Your task to perform on an android device: Open the calendar and show me this week's events Image 0: 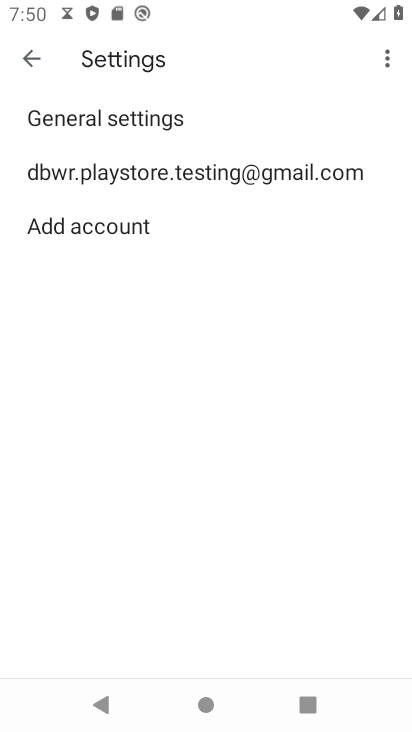
Step 0: press home button
Your task to perform on an android device: Open the calendar and show me this week's events Image 1: 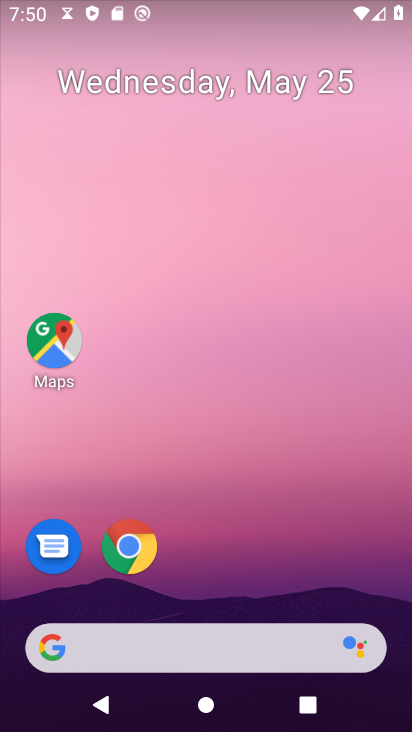
Step 1: drag from (226, 542) to (196, 12)
Your task to perform on an android device: Open the calendar and show me this week's events Image 2: 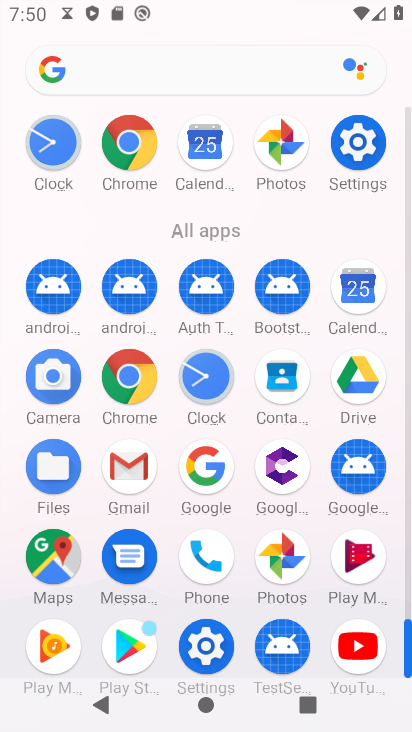
Step 2: click (344, 362)
Your task to perform on an android device: Open the calendar and show me this week's events Image 3: 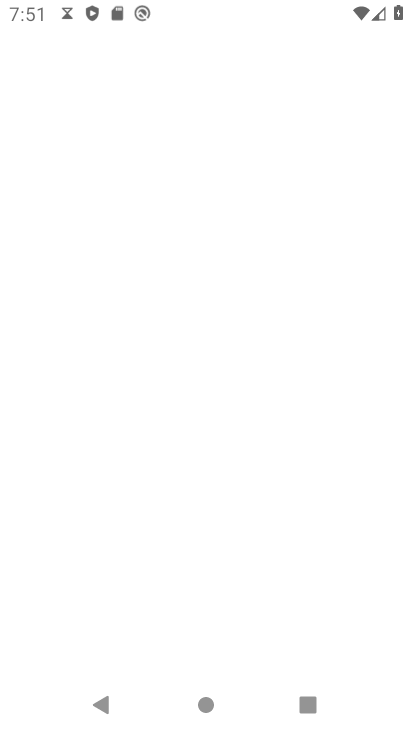
Step 3: press back button
Your task to perform on an android device: Open the calendar and show me this week's events Image 4: 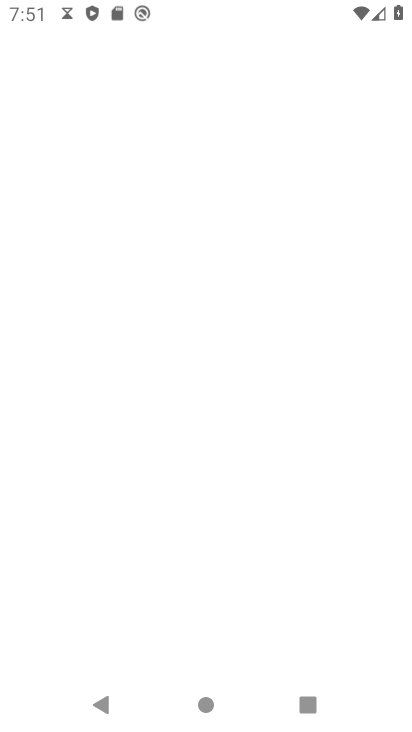
Step 4: press back button
Your task to perform on an android device: Open the calendar and show me this week's events Image 5: 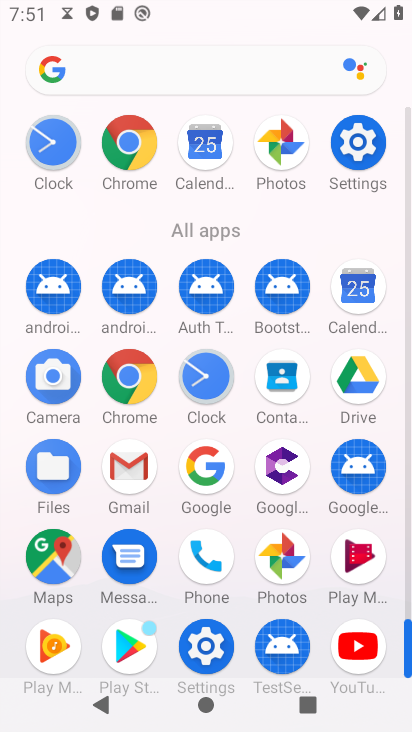
Step 5: click (363, 294)
Your task to perform on an android device: Open the calendar and show me this week's events Image 6: 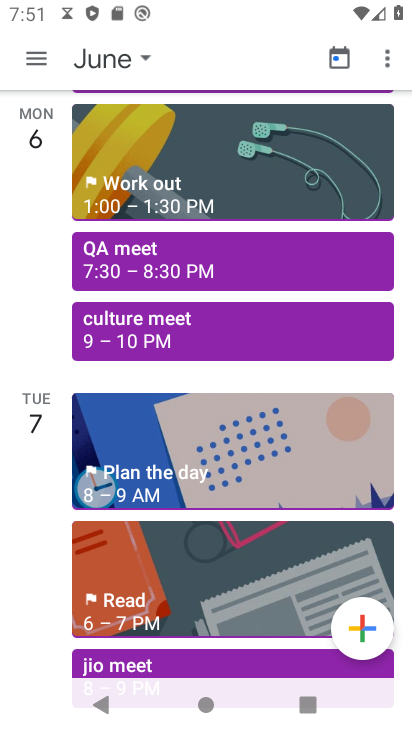
Step 6: click (35, 51)
Your task to perform on an android device: Open the calendar and show me this week's events Image 7: 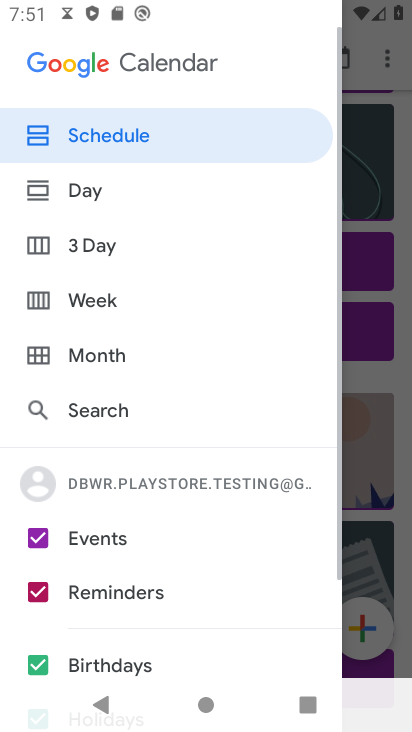
Step 7: click (100, 301)
Your task to perform on an android device: Open the calendar and show me this week's events Image 8: 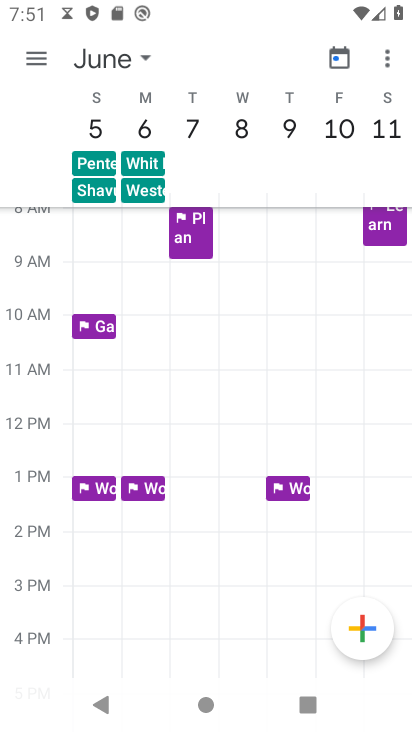
Step 8: click (118, 70)
Your task to perform on an android device: Open the calendar and show me this week's events Image 9: 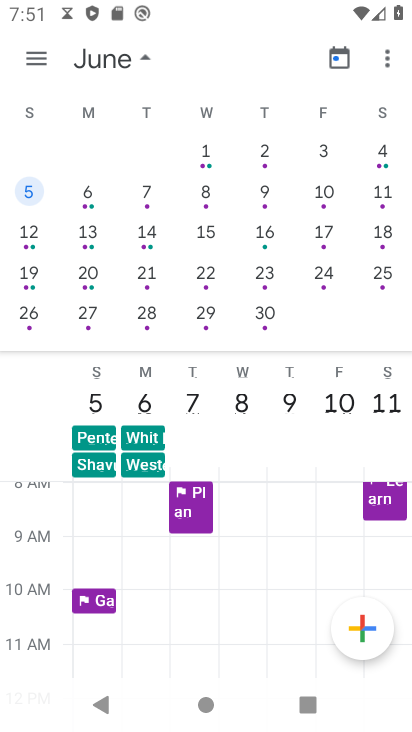
Step 9: drag from (65, 262) to (408, 253)
Your task to perform on an android device: Open the calendar and show me this week's events Image 10: 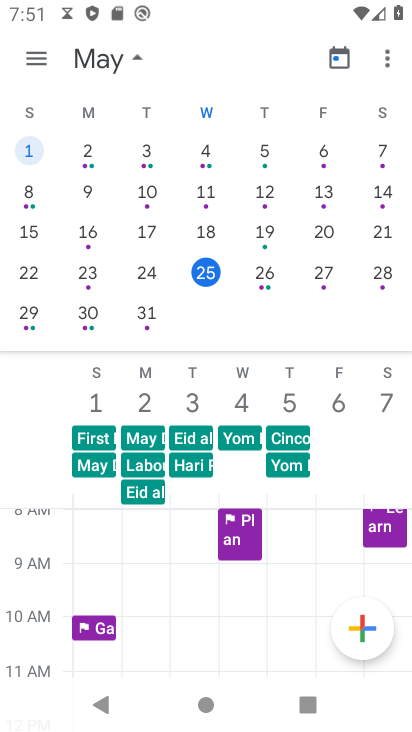
Step 10: click (31, 277)
Your task to perform on an android device: Open the calendar and show me this week's events Image 11: 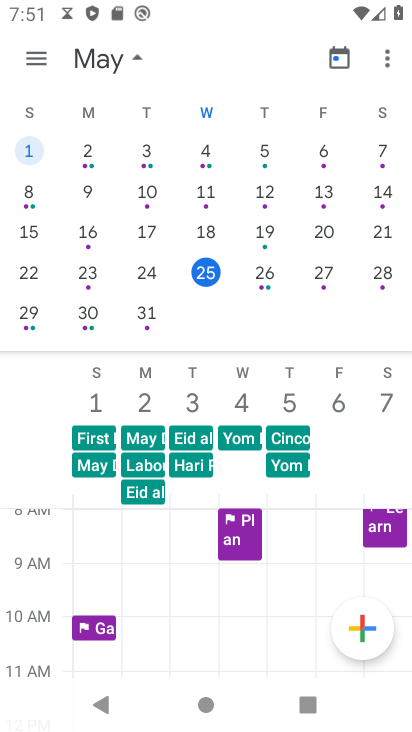
Step 11: click (31, 277)
Your task to perform on an android device: Open the calendar and show me this week's events Image 12: 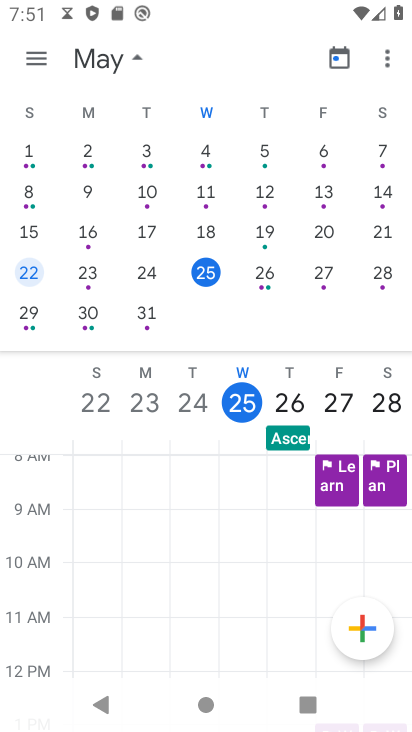
Step 12: task complete